Your task to perform on an android device: search for starred emails in the gmail app Image 0: 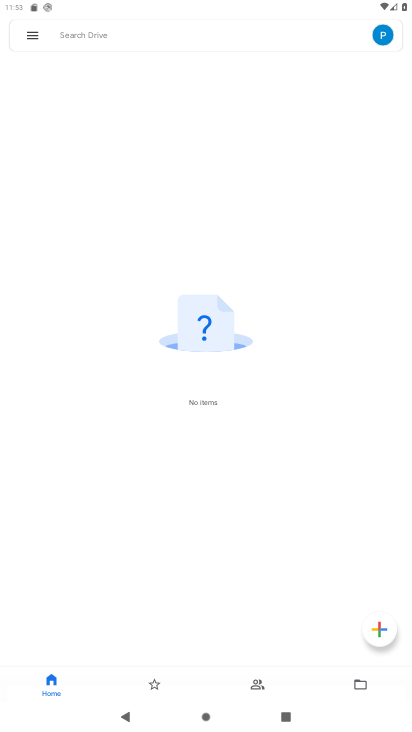
Step 0: press home button
Your task to perform on an android device: search for starred emails in the gmail app Image 1: 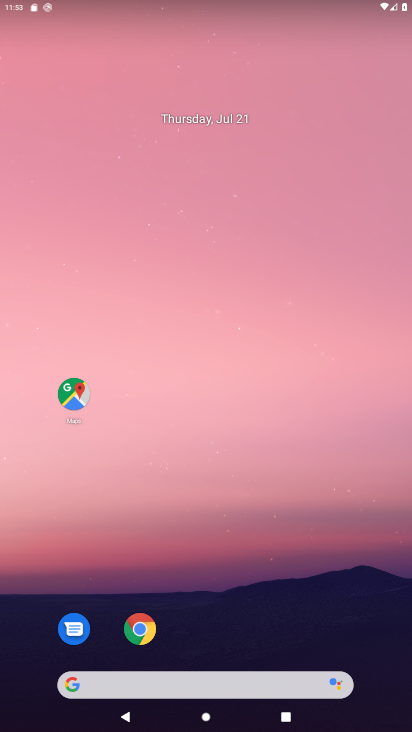
Step 1: drag from (164, 443) to (206, 7)
Your task to perform on an android device: search for starred emails in the gmail app Image 2: 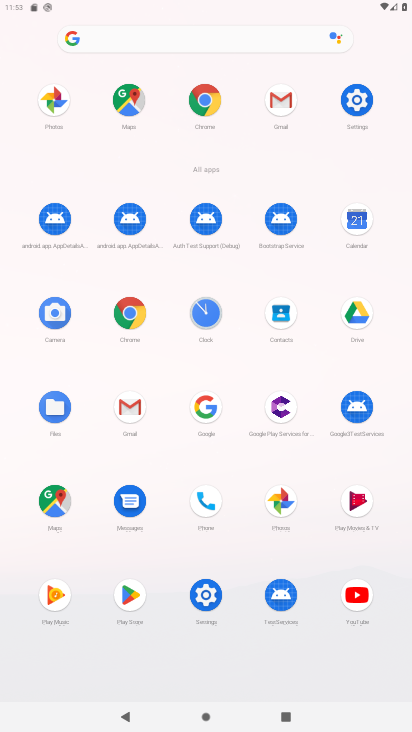
Step 2: click (121, 406)
Your task to perform on an android device: search for starred emails in the gmail app Image 3: 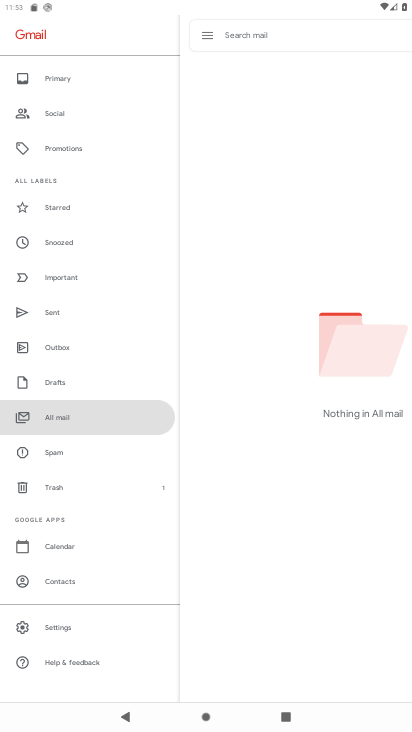
Step 3: click (68, 202)
Your task to perform on an android device: search for starred emails in the gmail app Image 4: 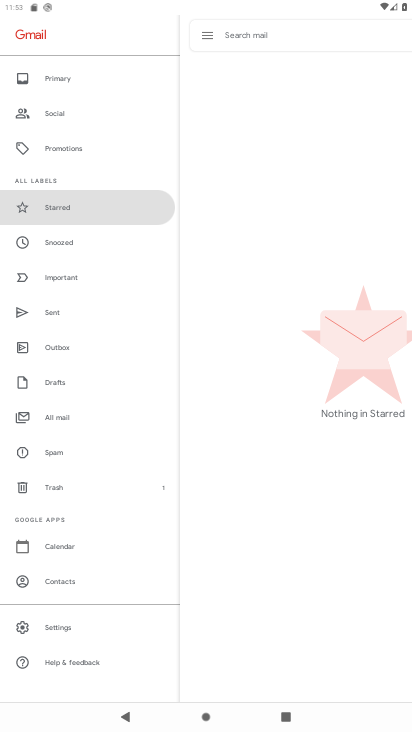
Step 4: task complete